Your task to perform on an android device: check google app version Image 0: 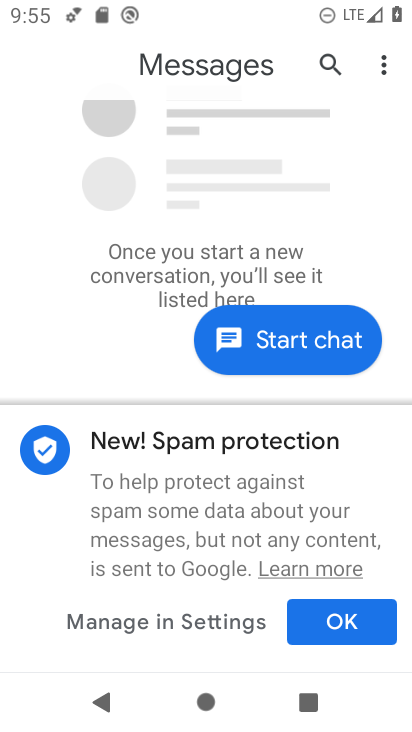
Step 0: press home button
Your task to perform on an android device: check google app version Image 1: 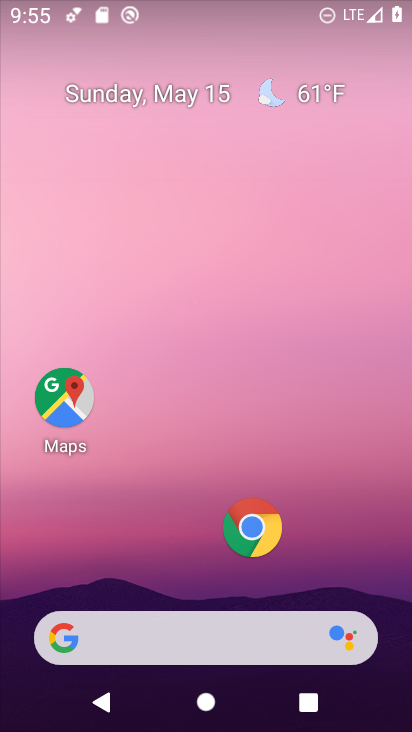
Step 1: drag from (204, 586) to (214, 44)
Your task to perform on an android device: check google app version Image 2: 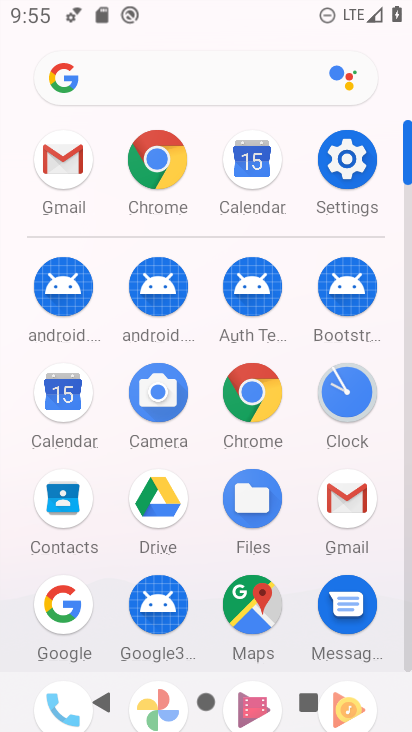
Step 2: drag from (202, 548) to (168, 15)
Your task to perform on an android device: check google app version Image 3: 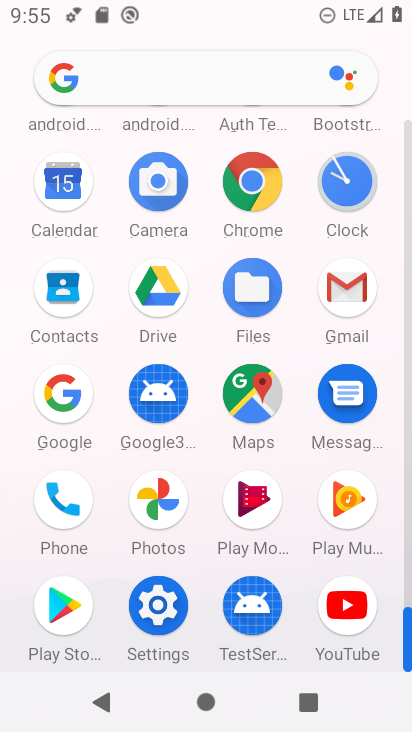
Step 3: click (66, 403)
Your task to perform on an android device: check google app version Image 4: 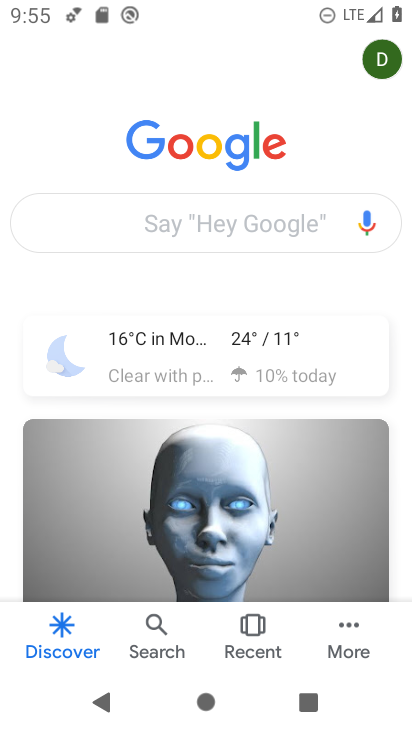
Step 4: click (341, 627)
Your task to perform on an android device: check google app version Image 5: 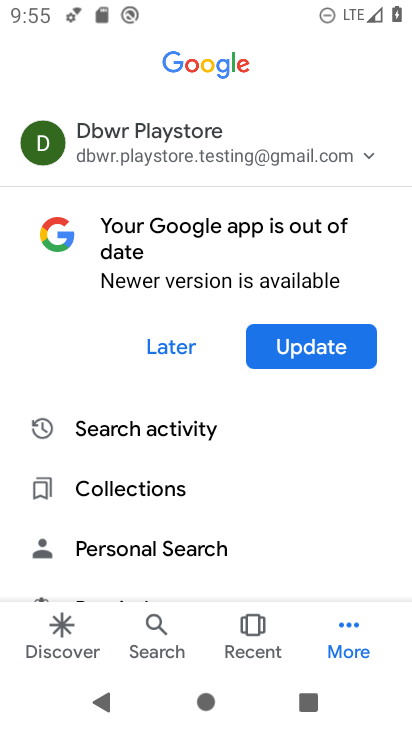
Step 5: drag from (142, 534) to (168, 127)
Your task to perform on an android device: check google app version Image 6: 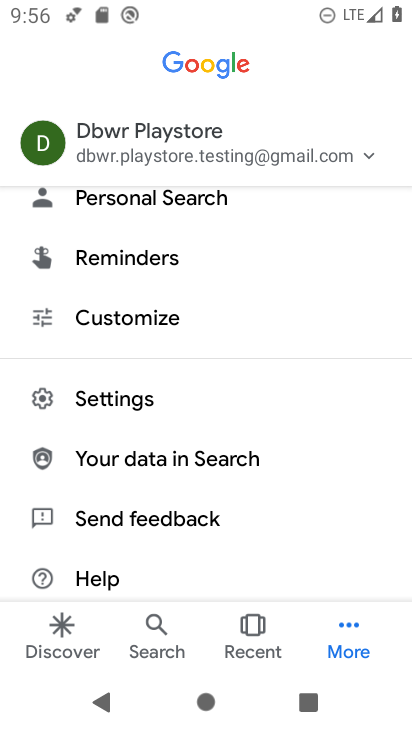
Step 6: click (140, 394)
Your task to perform on an android device: check google app version Image 7: 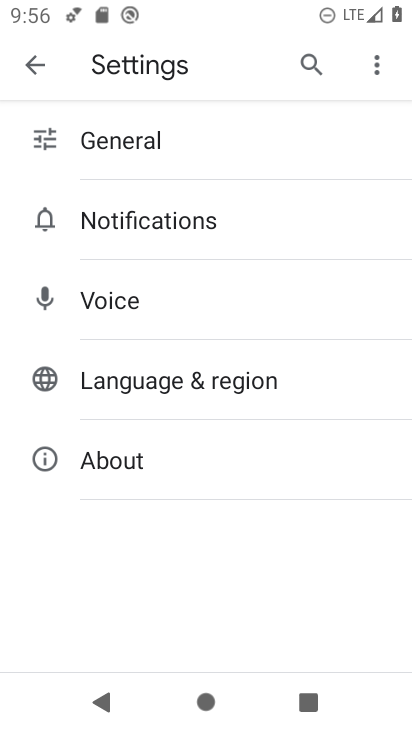
Step 7: click (154, 463)
Your task to perform on an android device: check google app version Image 8: 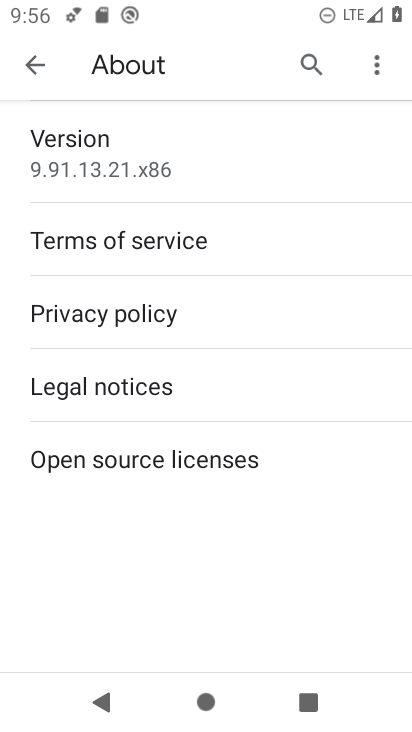
Step 8: task complete